Your task to perform on an android device: open a bookmark in the chrome app Image 0: 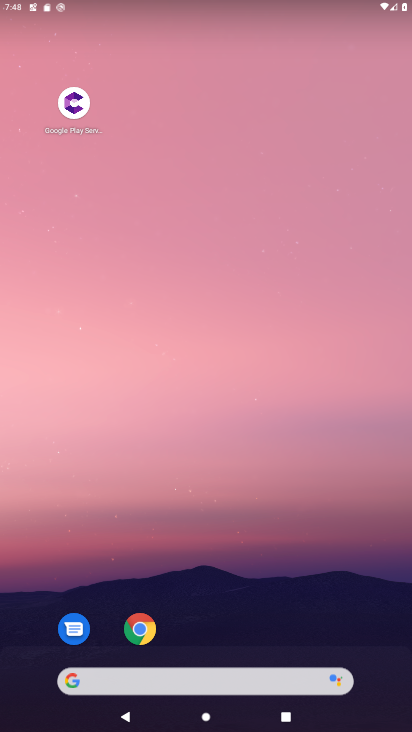
Step 0: drag from (229, 639) to (213, 273)
Your task to perform on an android device: open a bookmark in the chrome app Image 1: 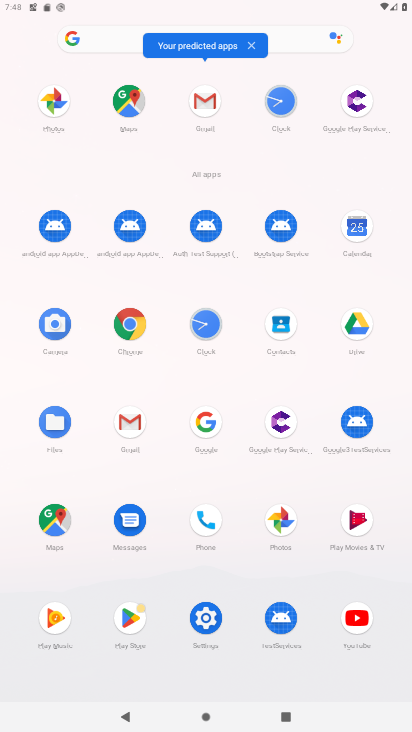
Step 1: click (135, 338)
Your task to perform on an android device: open a bookmark in the chrome app Image 2: 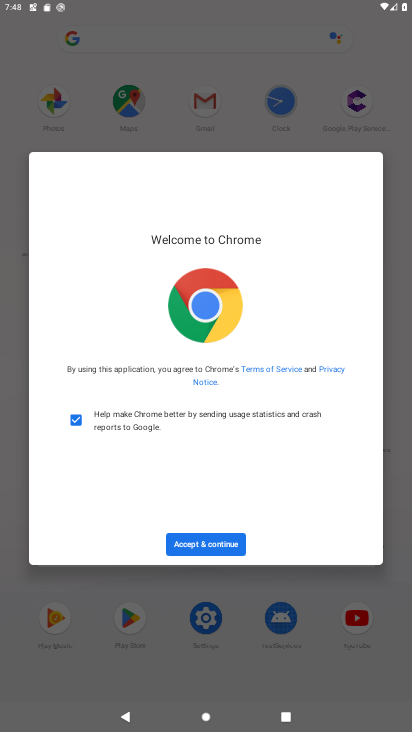
Step 2: click (195, 536)
Your task to perform on an android device: open a bookmark in the chrome app Image 3: 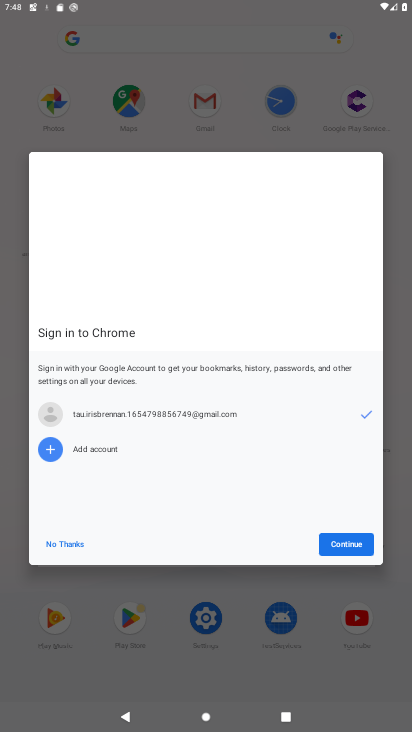
Step 3: click (344, 539)
Your task to perform on an android device: open a bookmark in the chrome app Image 4: 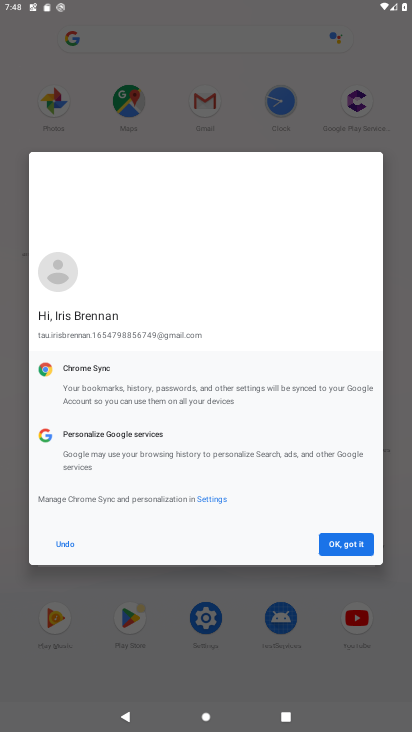
Step 4: click (344, 539)
Your task to perform on an android device: open a bookmark in the chrome app Image 5: 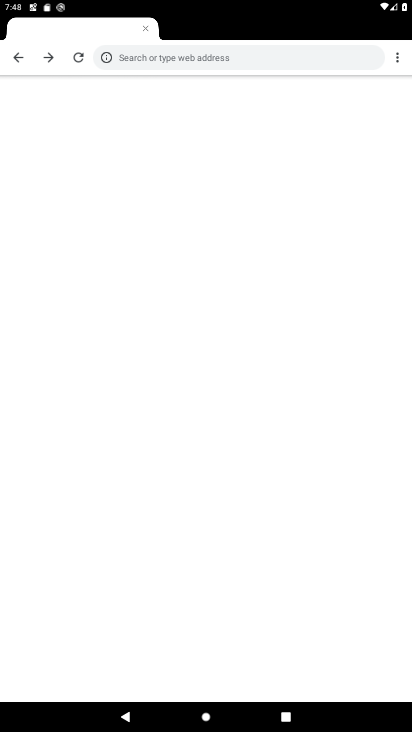
Step 5: click (398, 49)
Your task to perform on an android device: open a bookmark in the chrome app Image 6: 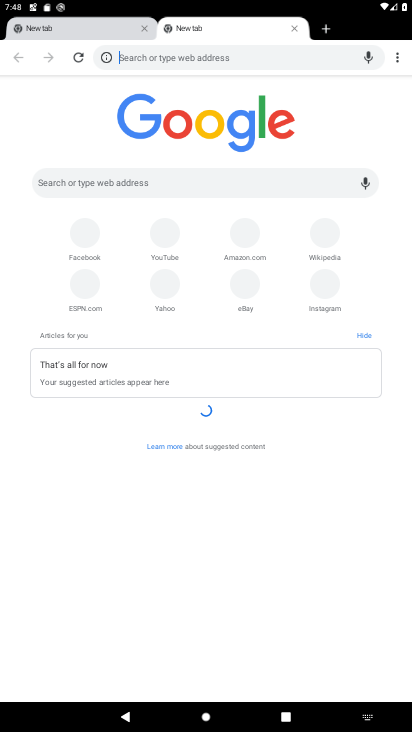
Step 6: click (397, 61)
Your task to perform on an android device: open a bookmark in the chrome app Image 7: 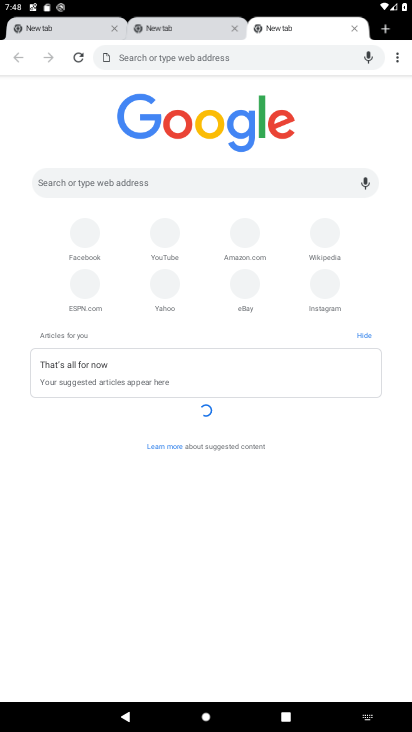
Step 7: click (397, 61)
Your task to perform on an android device: open a bookmark in the chrome app Image 8: 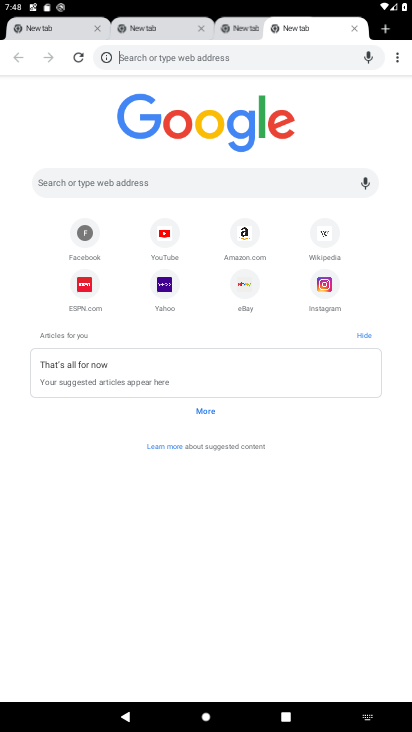
Step 8: click (397, 52)
Your task to perform on an android device: open a bookmark in the chrome app Image 9: 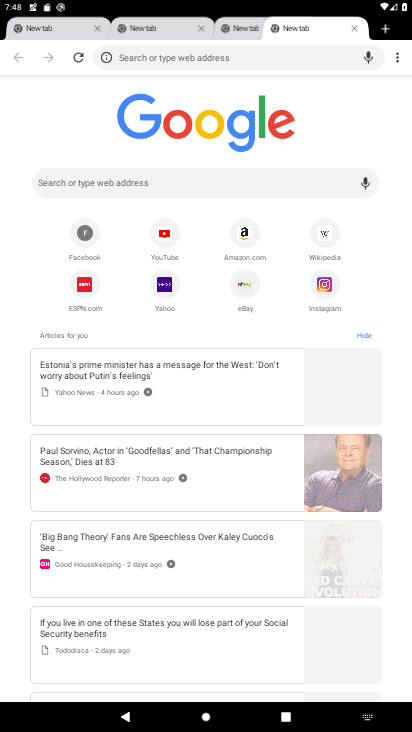
Step 9: click (397, 52)
Your task to perform on an android device: open a bookmark in the chrome app Image 10: 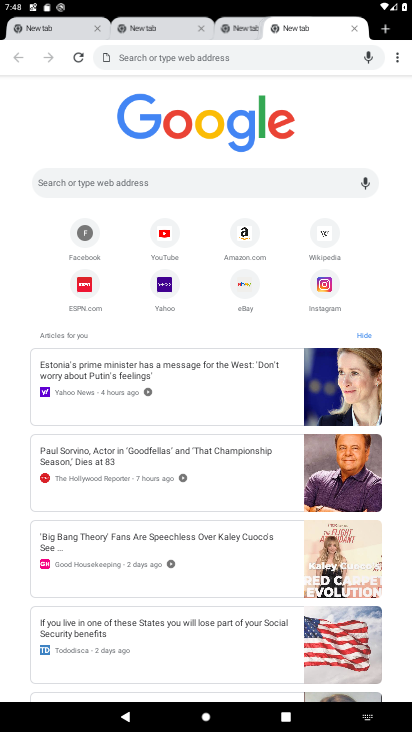
Step 10: click (404, 58)
Your task to perform on an android device: open a bookmark in the chrome app Image 11: 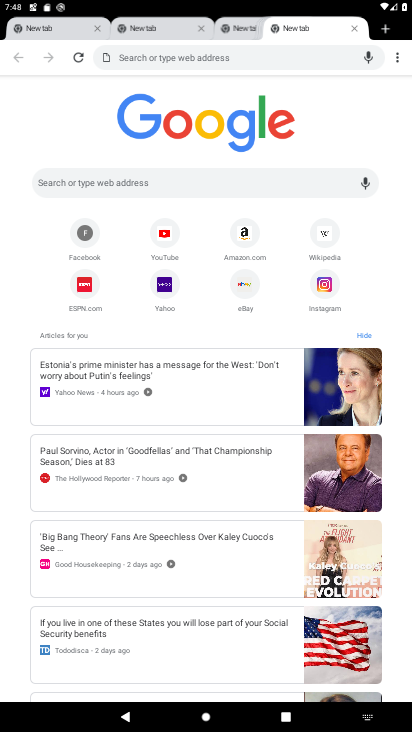
Step 11: click (404, 58)
Your task to perform on an android device: open a bookmark in the chrome app Image 12: 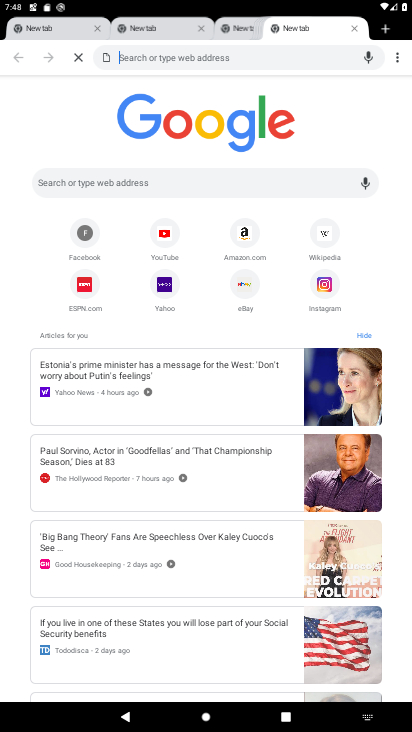
Step 12: click (404, 58)
Your task to perform on an android device: open a bookmark in the chrome app Image 13: 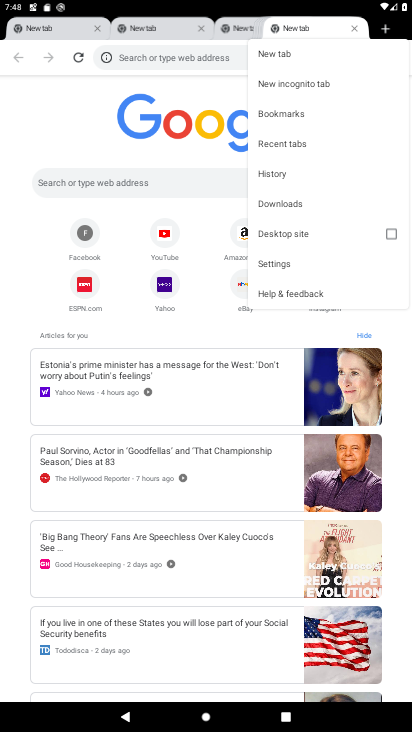
Step 13: click (256, 116)
Your task to perform on an android device: open a bookmark in the chrome app Image 14: 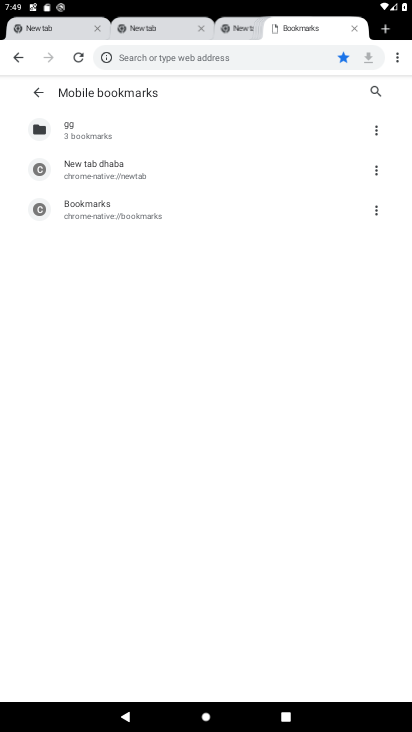
Step 14: task complete